Your task to perform on an android device: turn on sleep mode Image 0: 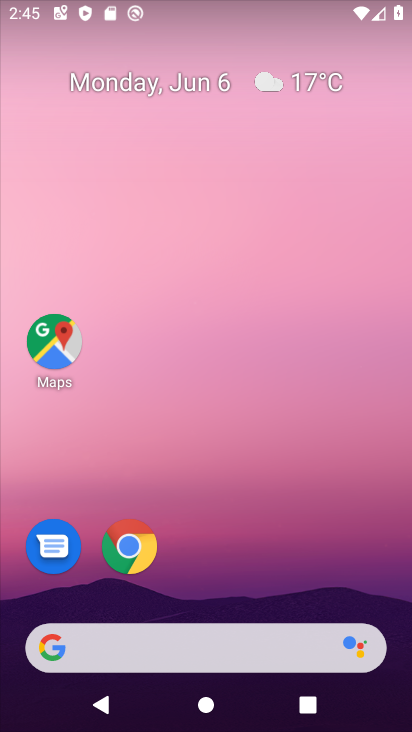
Step 0: drag from (301, 584) to (250, 27)
Your task to perform on an android device: turn on sleep mode Image 1: 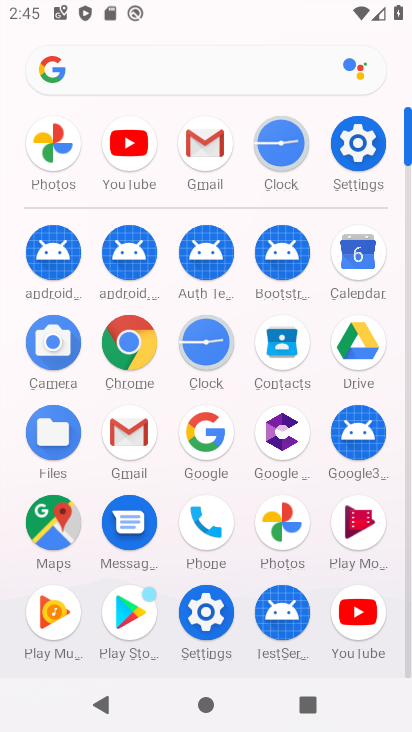
Step 1: click (347, 127)
Your task to perform on an android device: turn on sleep mode Image 2: 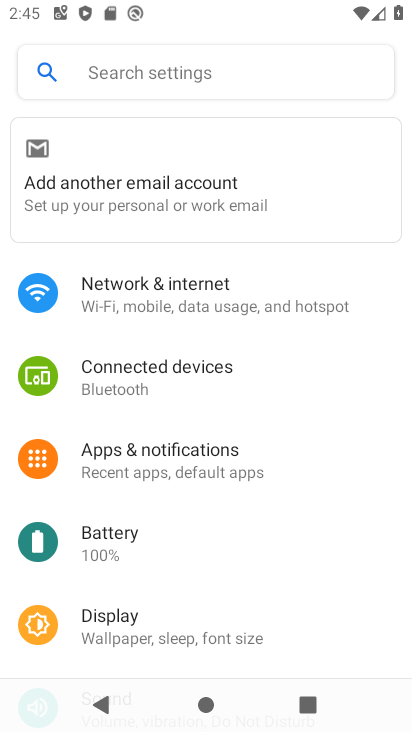
Step 2: click (235, 618)
Your task to perform on an android device: turn on sleep mode Image 3: 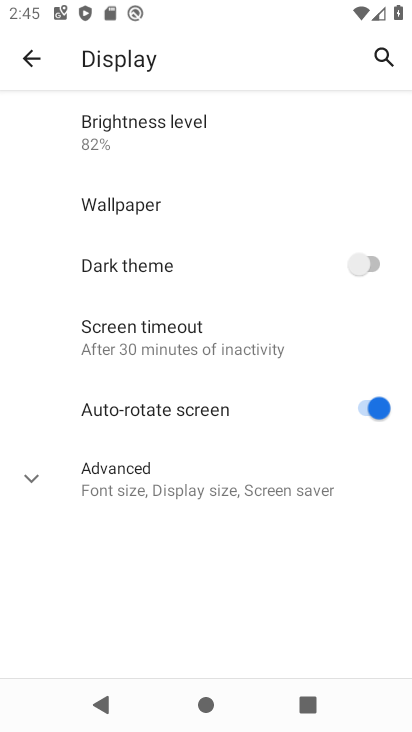
Step 3: click (261, 339)
Your task to perform on an android device: turn on sleep mode Image 4: 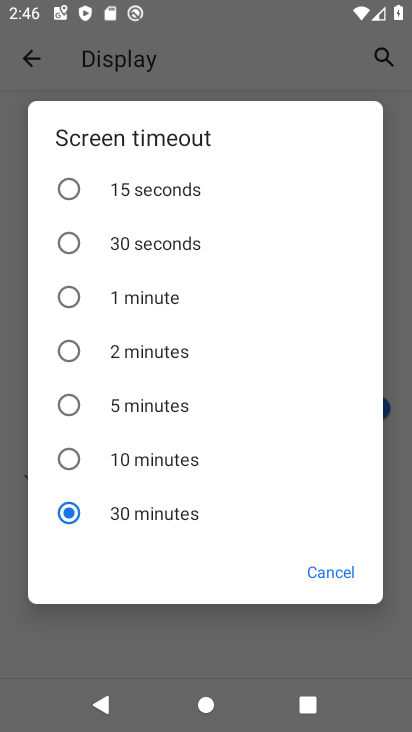
Step 4: click (186, 339)
Your task to perform on an android device: turn on sleep mode Image 5: 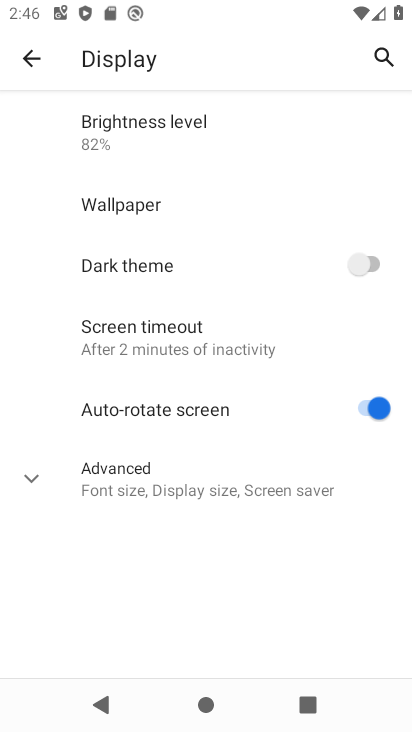
Step 5: task complete